Your task to perform on an android device: add a label to a message in the gmail app Image 0: 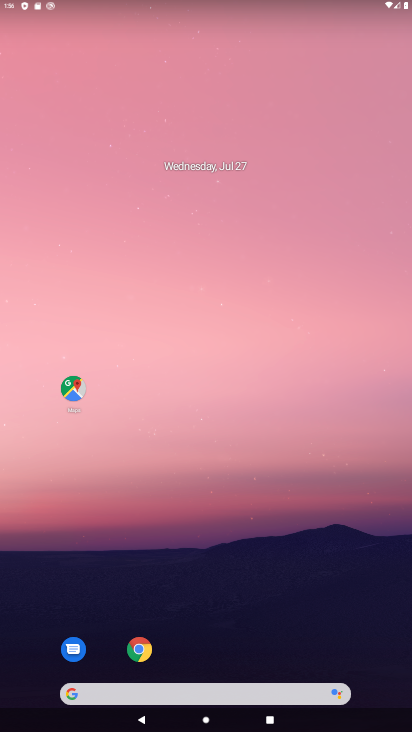
Step 0: drag from (264, 595) to (342, 99)
Your task to perform on an android device: add a label to a message in the gmail app Image 1: 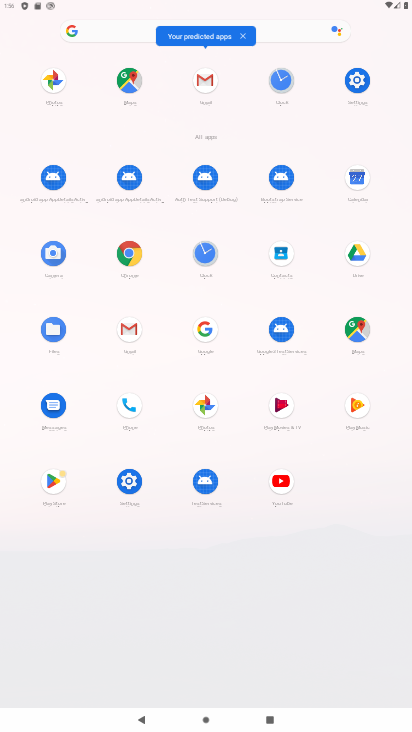
Step 1: click (135, 332)
Your task to perform on an android device: add a label to a message in the gmail app Image 2: 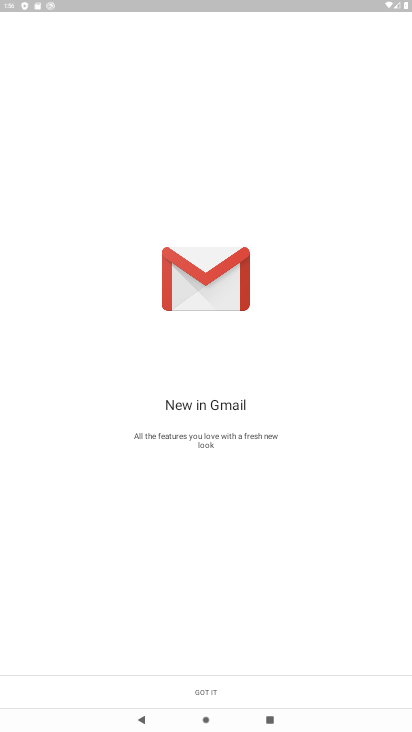
Step 2: click (247, 683)
Your task to perform on an android device: add a label to a message in the gmail app Image 3: 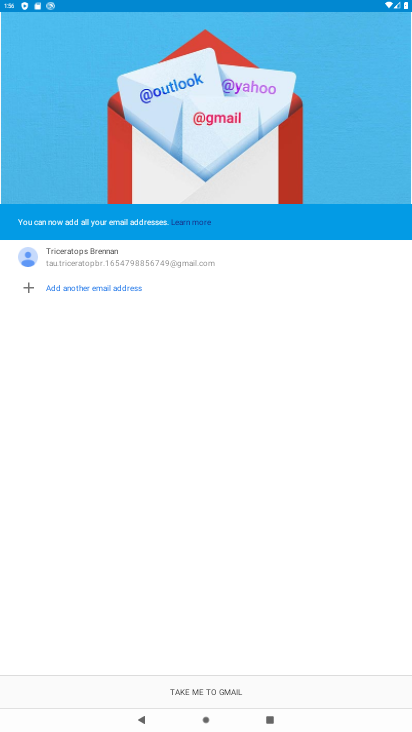
Step 3: click (229, 687)
Your task to perform on an android device: add a label to a message in the gmail app Image 4: 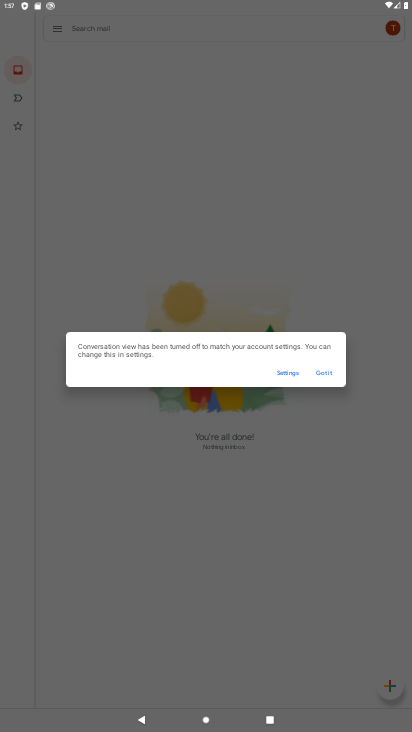
Step 4: click (323, 375)
Your task to perform on an android device: add a label to a message in the gmail app Image 5: 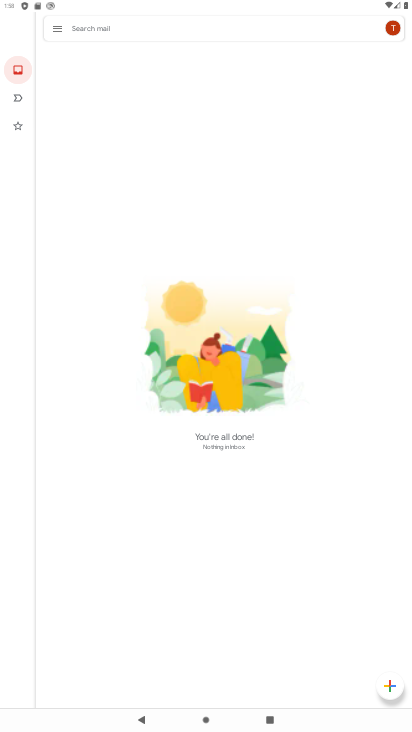
Step 5: task complete